Your task to perform on an android device: What's the weather today? Image 0: 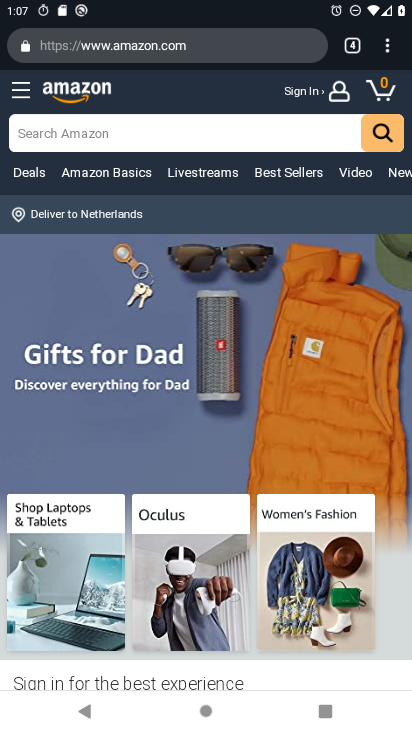
Step 0: press home button
Your task to perform on an android device: What's the weather today? Image 1: 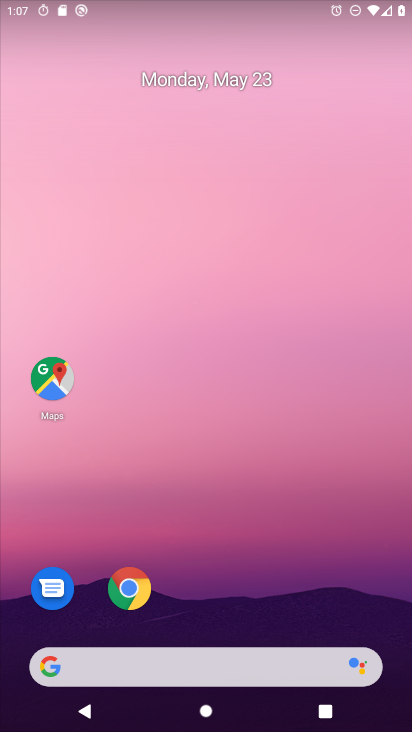
Step 1: drag from (271, 704) to (228, 37)
Your task to perform on an android device: What's the weather today? Image 2: 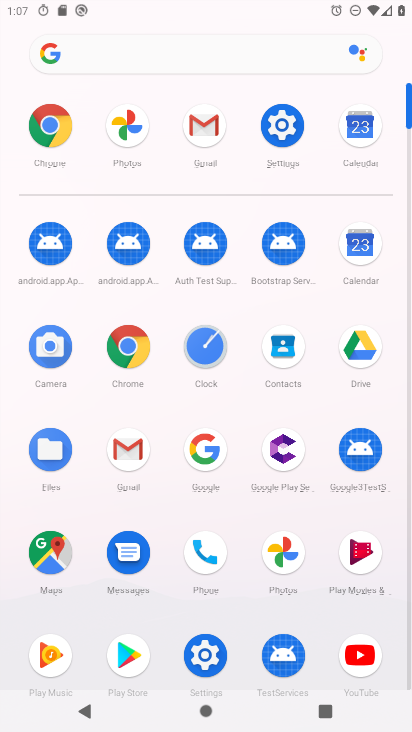
Step 2: click (152, 58)
Your task to perform on an android device: What's the weather today? Image 3: 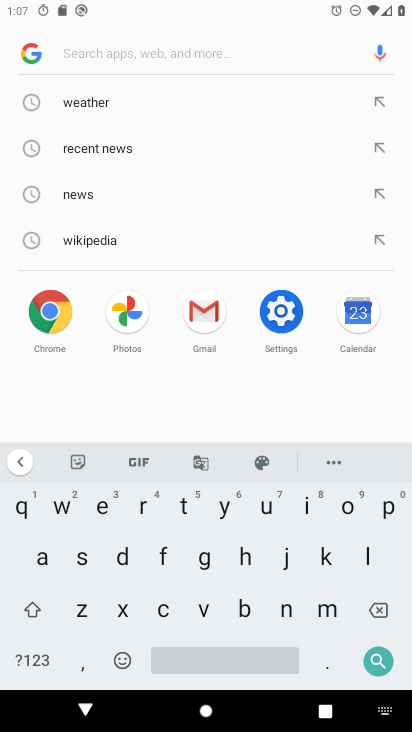
Step 3: click (76, 106)
Your task to perform on an android device: What's the weather today? Image 4: 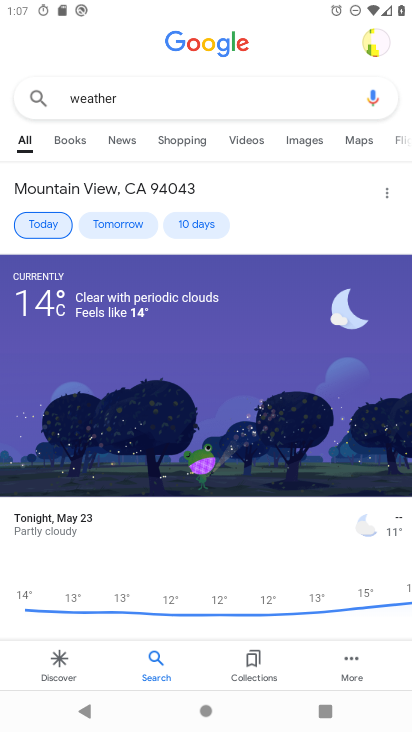
Step 4: task complete